Your task to perform on an android device: snooze an email in the gmail app Image 0: 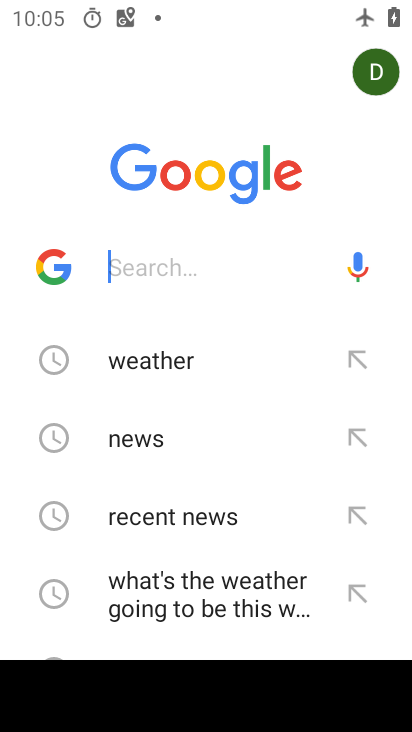
Step 0: press home button
Your task to perform on an android device: snooze an email in the gmail app Image 1: 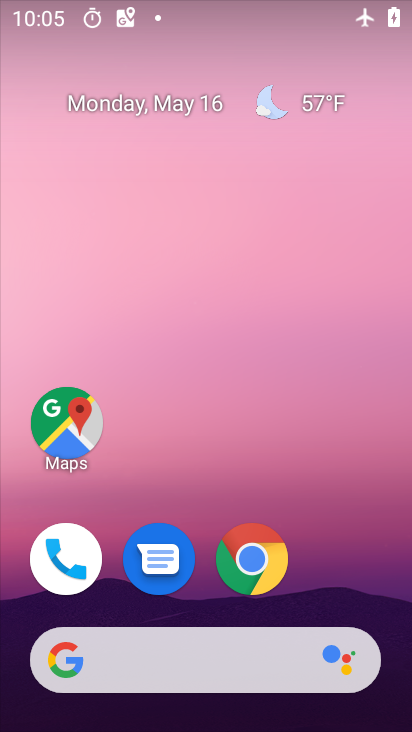
Step 1: drag from (339, 357) to (326, 44)
Your task to perform on an android device: snooze an email in the gmail app Image 2: 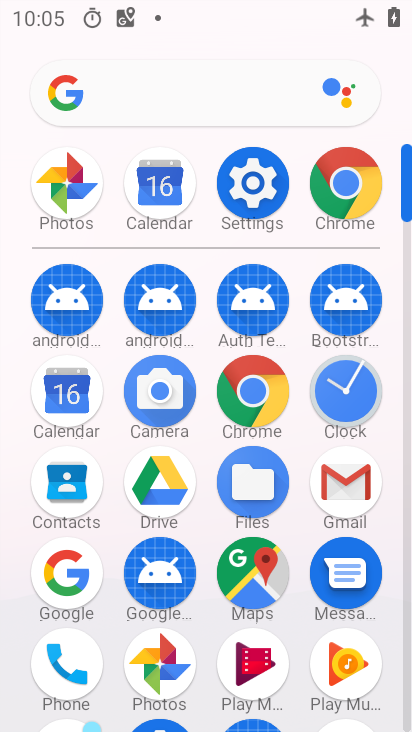
Step 2: click (343, 498)
Your task to perform on an android device: snooze an email in the gmail app Image 3: 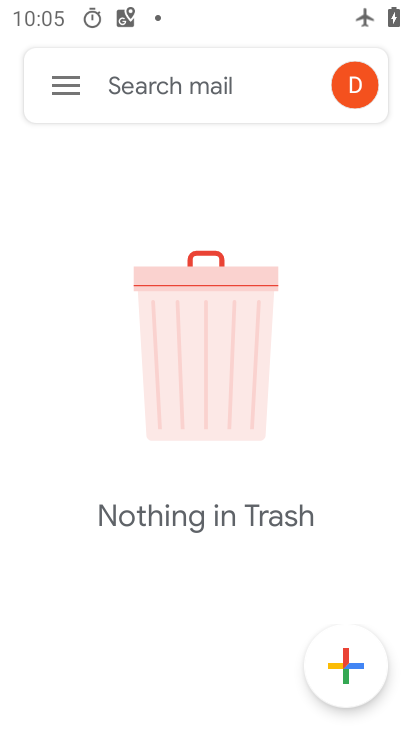
Step 3: click (61, 87)
Your task to perform on an android device: snooze an email in the gmail app Image 4: 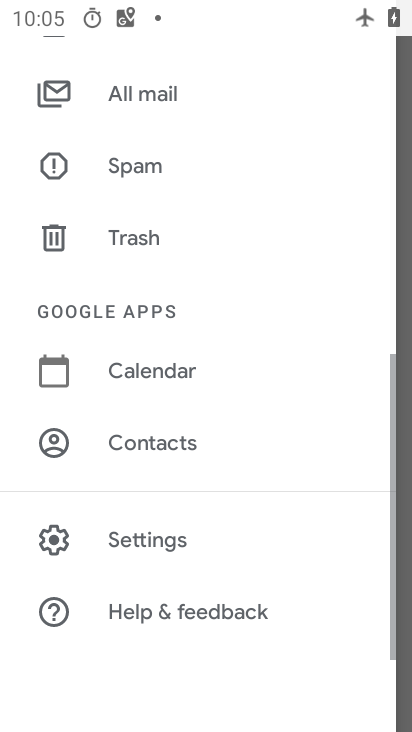
Step 4: drag from (212, 145) to (250, 615)
Your task to perform on an android device: snooze an email in the gmail app Image 5: 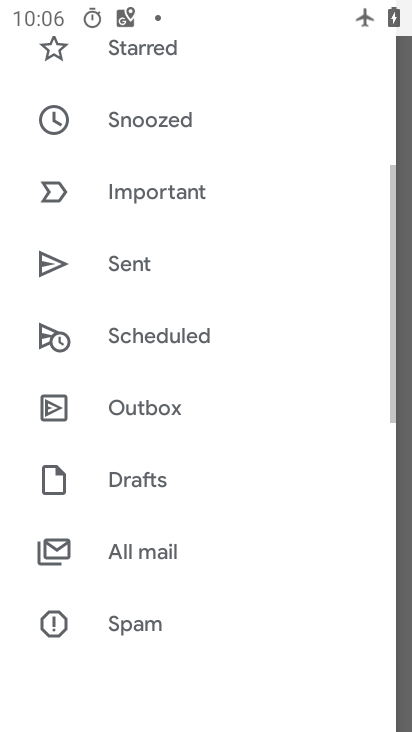
Step 5: drag from (240, 251) to (201, 493)
Your task to perform on an android device: snooze an email in the gmail app Image 6: 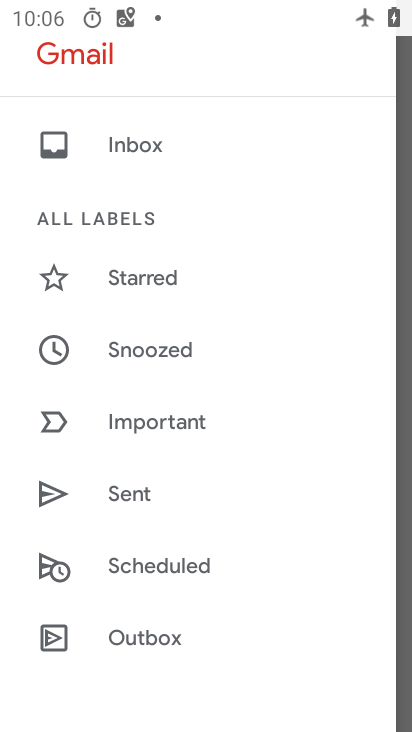
Step 6: drag from (172, 582) to (221, 186)
Your task to perform on an android device: snooze an email in the gmail app Image 7: 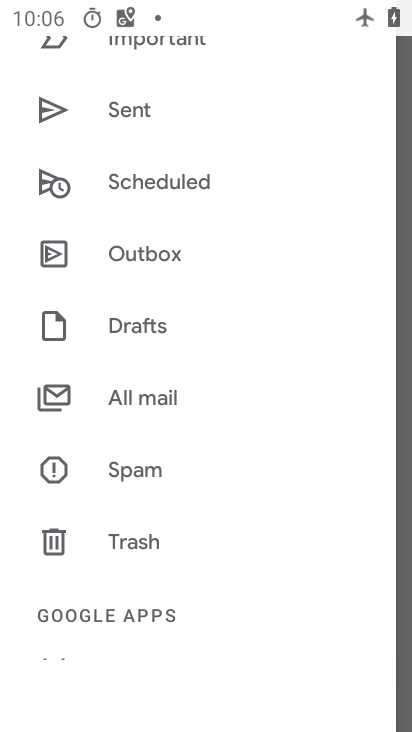
Step 7: click (134, 391)
Your task to perform on an android device: snooze an email in the gmail app Image 8: 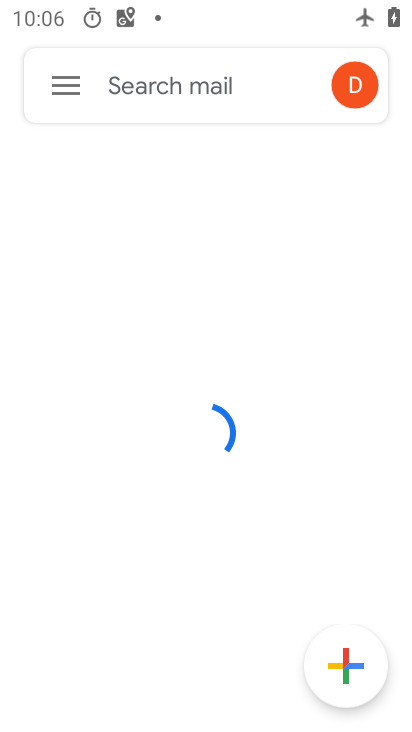
Step 8: task complete